Your task to perform on an android device: open wifi settings Image 0: 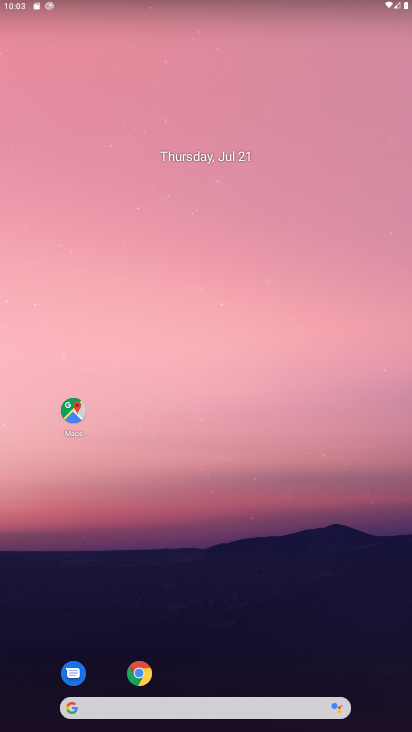
Step 0: drag from (204, 669) to (200, 145)
Your task to perform on an android device: open wifi settings Image 1: 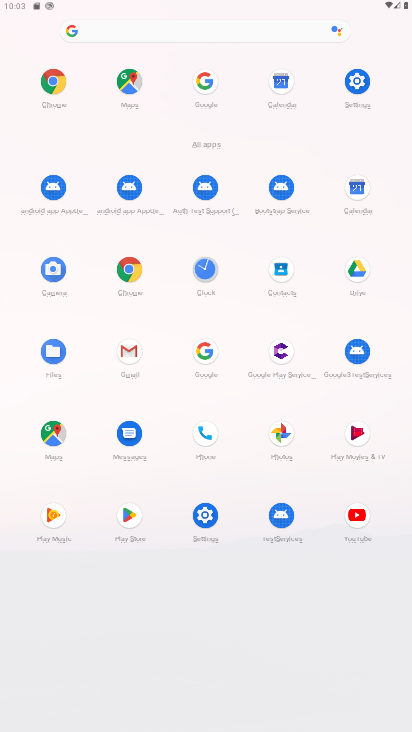
Step 1: click (352, 83)
Your task to perform on an android device: open wifi settings Image 2: 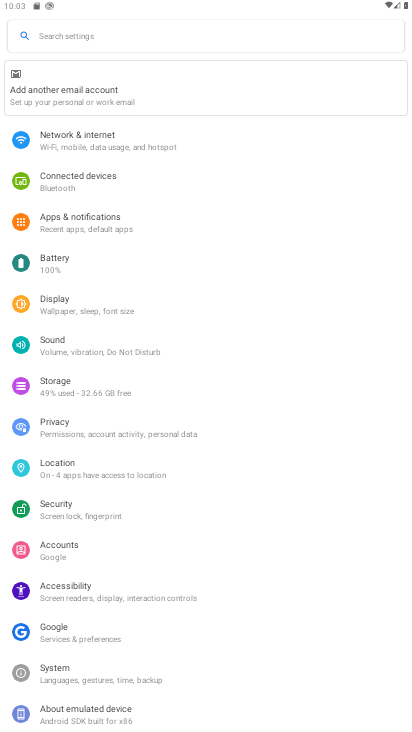
Step 2: click (91, 136)
Your task to perform on an android device: open wifi settings Image 3: 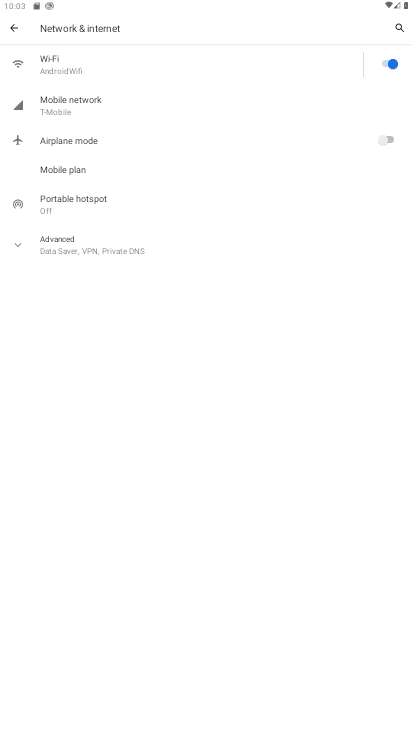
Step 3: click (67, 69)
Your task to perform on an android device: open wifi settings Image 4: 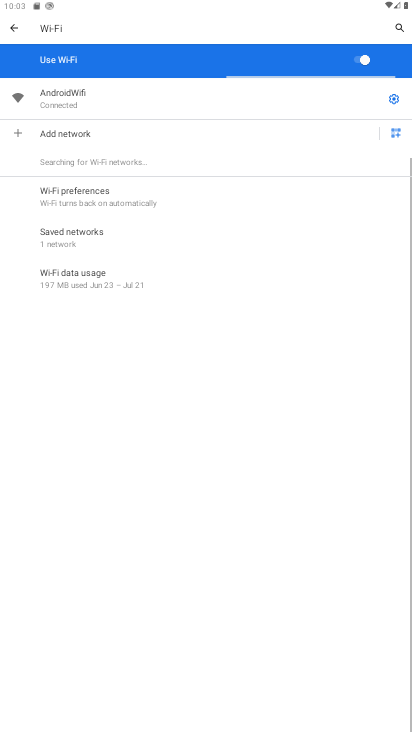
Step 4: click (127, 115)
Your task to perform on an android device: open wifi settings Image 5: 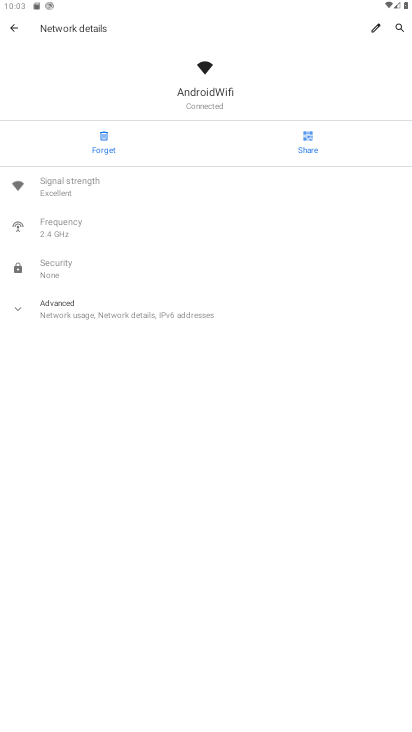
Step 5: task complete